Your task to perform on an android device: turn on sleep mode Image 0: 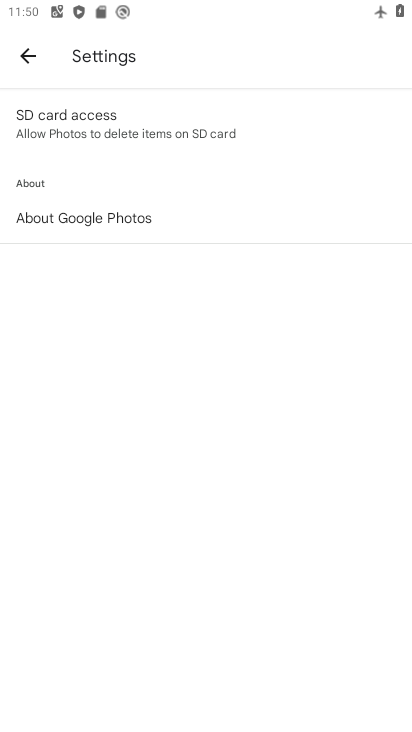
Step 0: press home button
Your task to perform on an android device: turn on sleep mode Image 1: 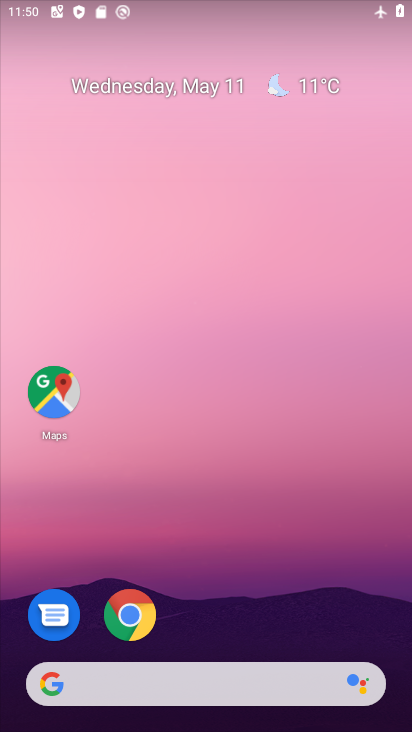
Step 1: drag from (234, 571) to (300, 151)
Your task to perform on an android device: turn on sleep mode Image 2: 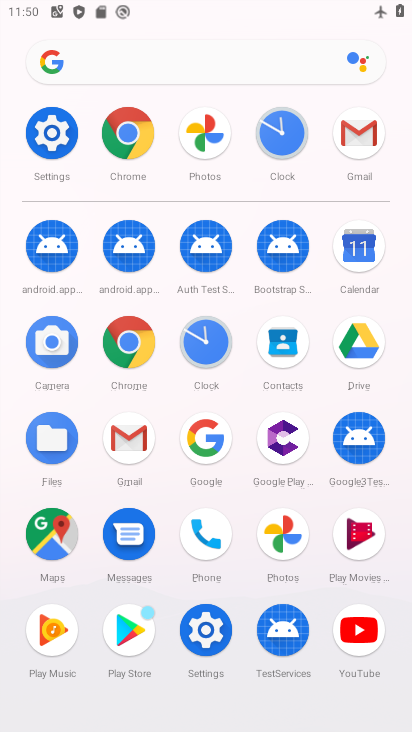
Step 2: click (62, 126)
Your task to perform on an android device: turn on sleep mode Image 3: 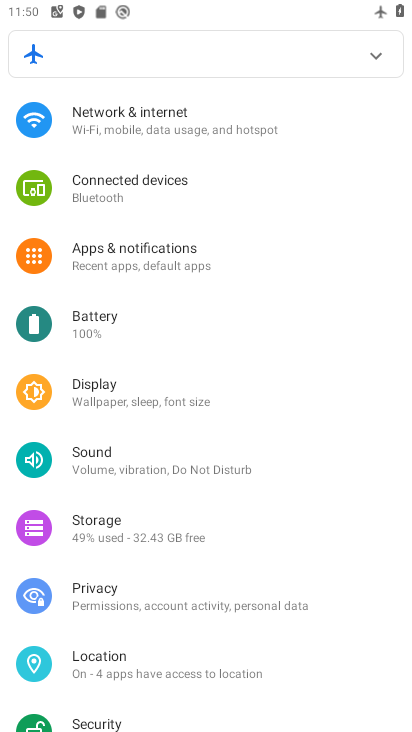
Step 3: drag from (203, 489) to (318, 190)
Your task to perform on an android device: turn on sleep mode Image 4: 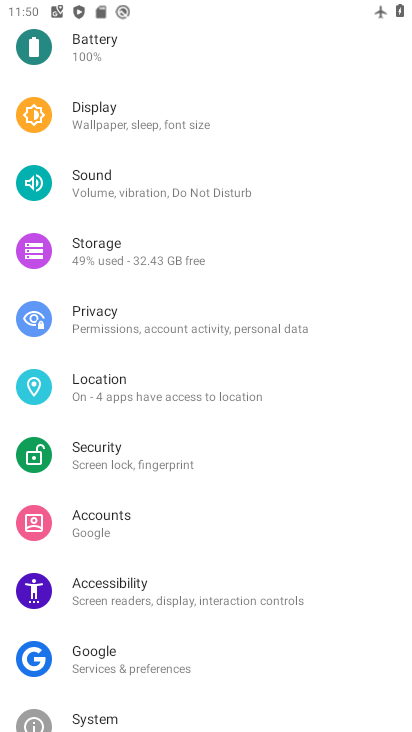
Step 4: click (222, 141)
Your task to perform on an android device: turn on sleep mode Image 5: 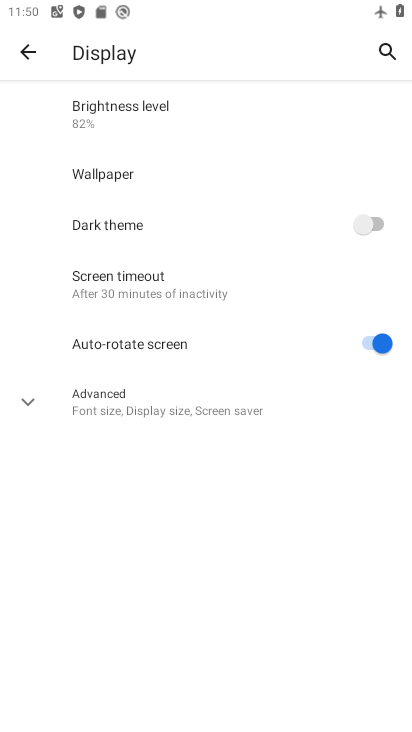
Step 5: click (158, 284)
Your task to perform on an android device: turn on sleep mode Image 6: 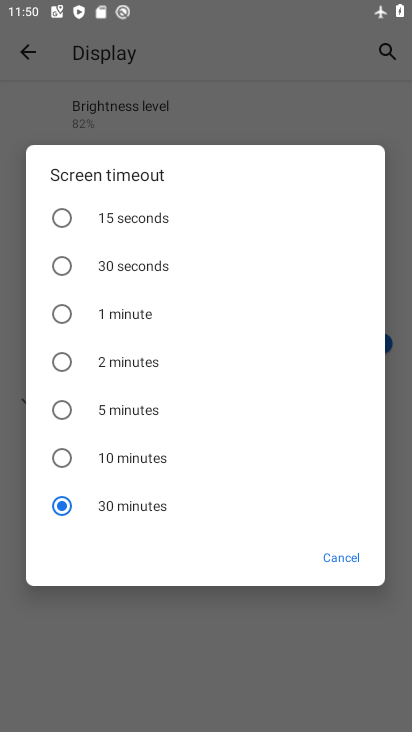
Step 6: task complete